Your task to perform on an android device: clear all cookies in the chrome app Image 0: 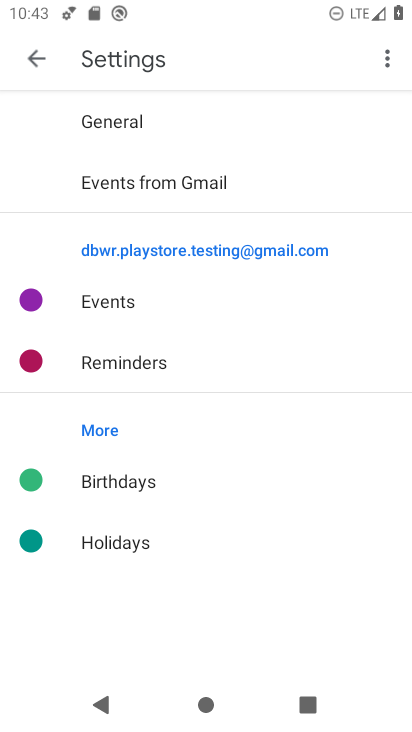
Step 0: press home button
Your task to perform on an android device: clear all cookies in the chrome app Image 1: 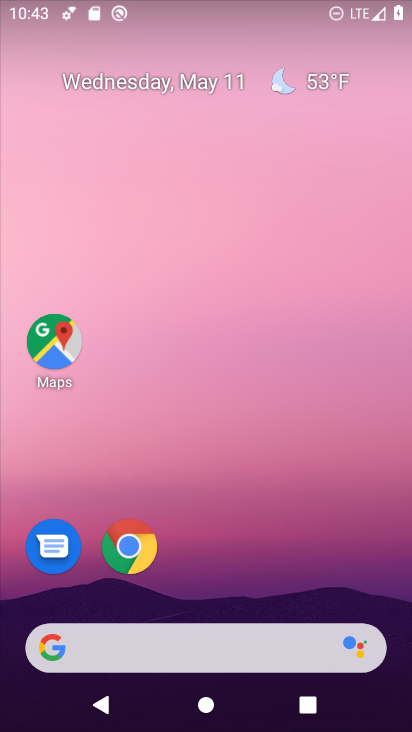
Step 1: drag from (387, 643) to (303, 25)
Your task to perform on an android device: clear all cookies in the chrome app Image 2: 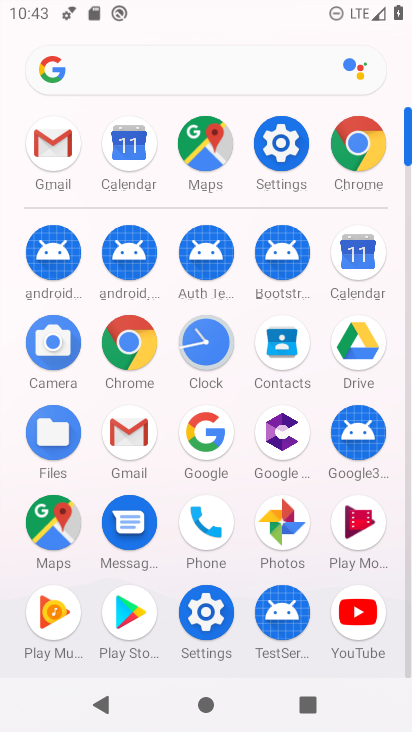
Step 2: click (365, 151)
Your task to perform on an android device: clear all cookies in the chrome app Image 3: 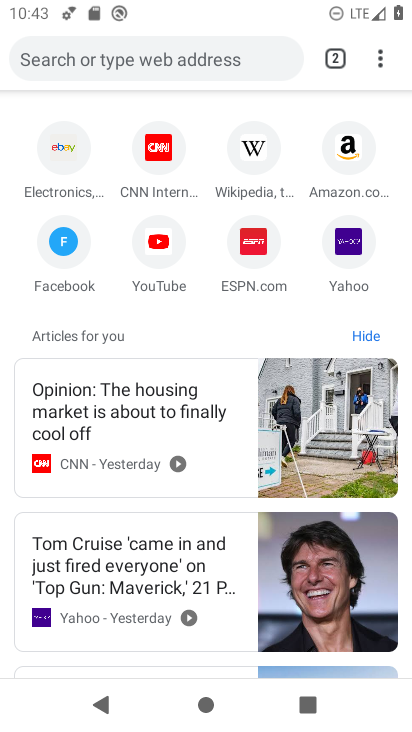
Step 3: click (376, 56)
Your task to perform on an android device: clear all cookies in the chrome app Image 4: 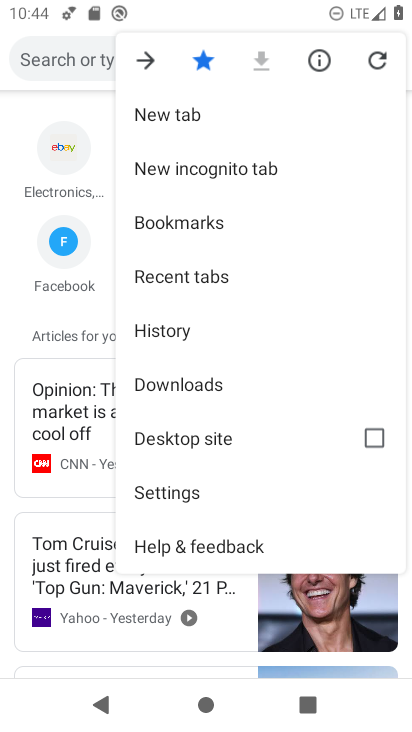
Step 4: click (232, 344)
Your task to perform on an android device: clear all cookies in the chrome app Image 5: 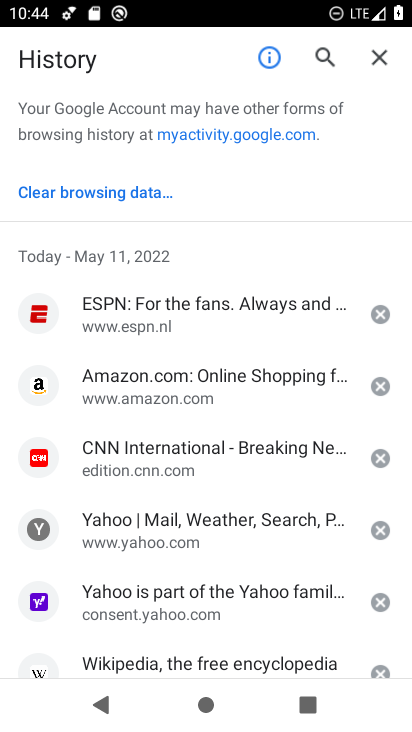
Step 5: click (110, 196)
Your task to perform on an android device: clear all cookies in the chrome app Image 6: 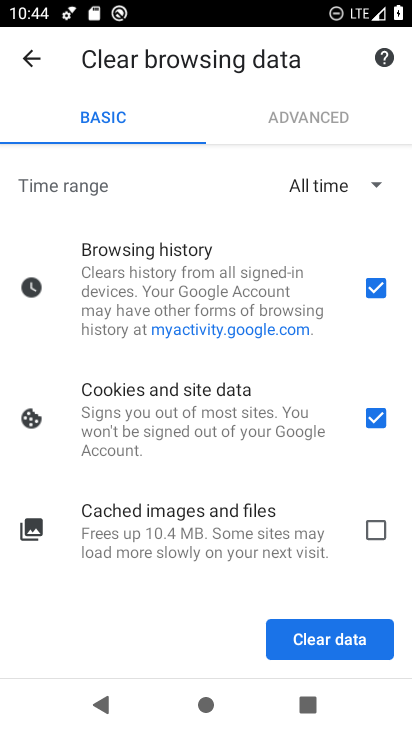
Step 6: click (352, 648)
Your task to perform on an android device: clear all cookies in the chrome app Image 7: 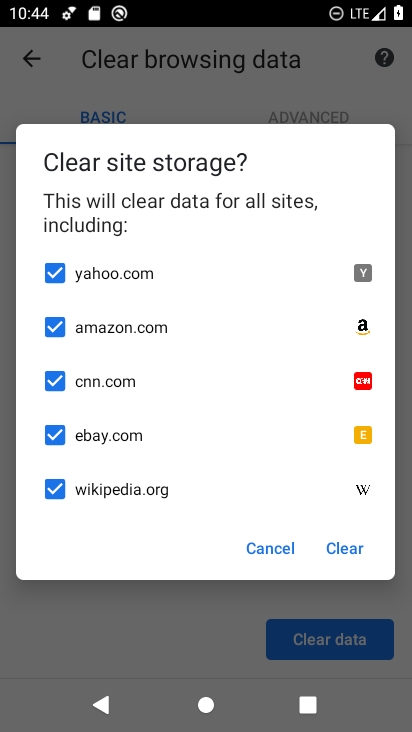
Step 7: click (352, 544)
Your task to perform on an android device: clear all cookies in the chrome app Image 8: 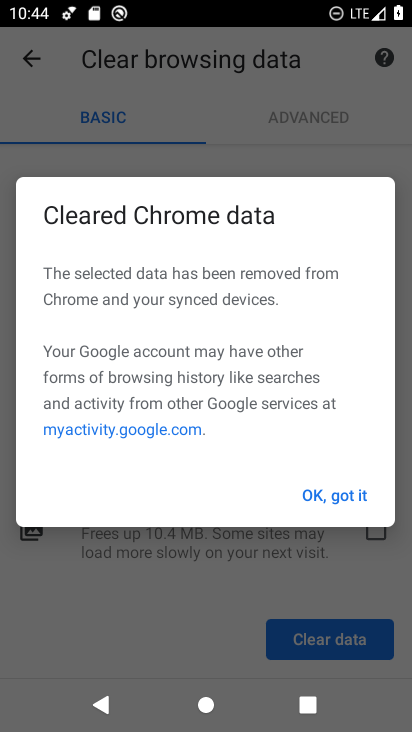
Step 8: click (316, 480)
Your task to perform on an android device: clear all cookies in the chrome app Image 9: 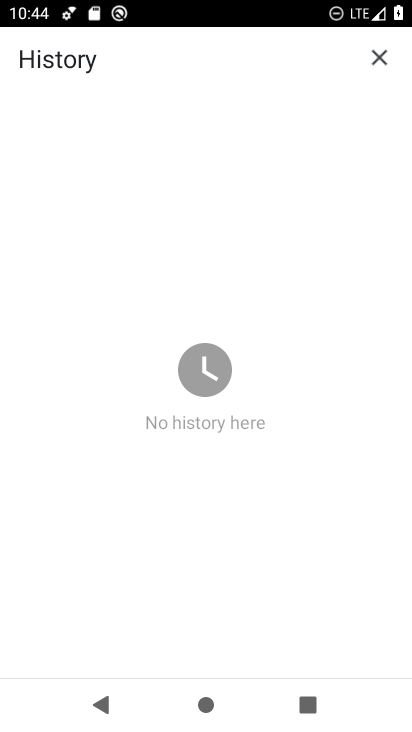
Step 9: task complete